Your task to perform on an android device: Go to display settings Image 0: 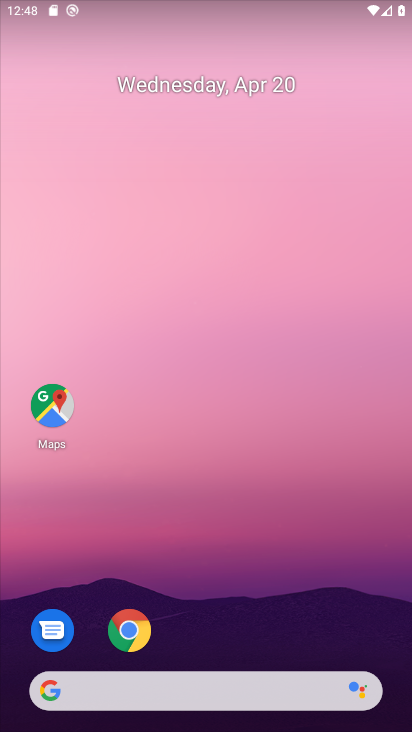
Step 0: drag from (220, 620) to (133, 125)
Your task to perform on an android device: Go to display settings Image 1: 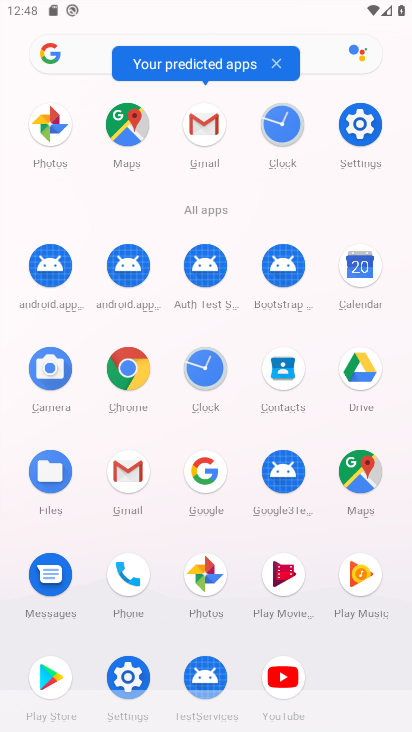
Step 1: click (362, 124)
Your task to perform on an android device: Go to display settings Image 2: 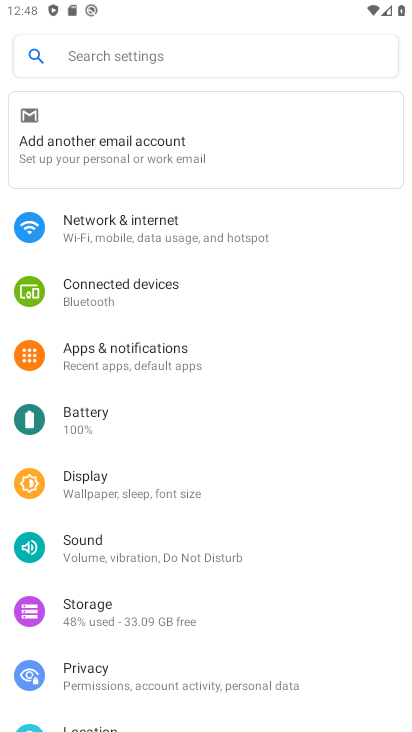
Step 2: click (74, 490)
Your task to perform on an android device: Go to display settings Image 3: 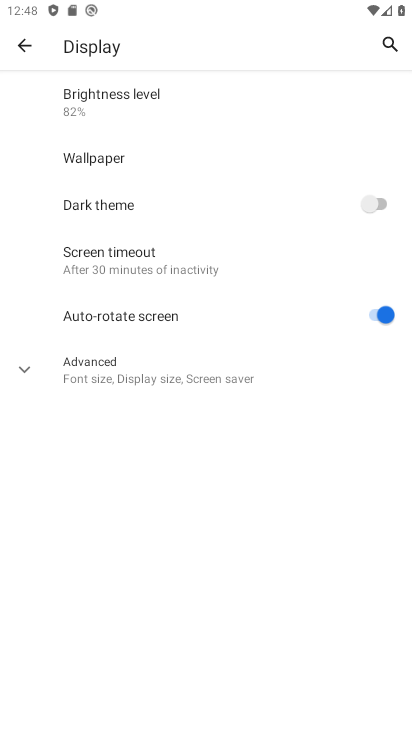
Step 3: click (131, 385)
Your task to perform on an android device: Go to display settings Image 4: 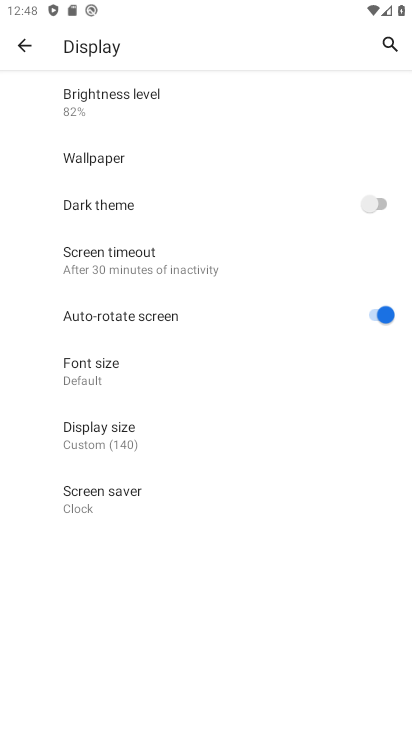
Step 4: task complete